Your task to perform on an android device: uninstall "TextNow: Call + Text Unlimited" Image 0: 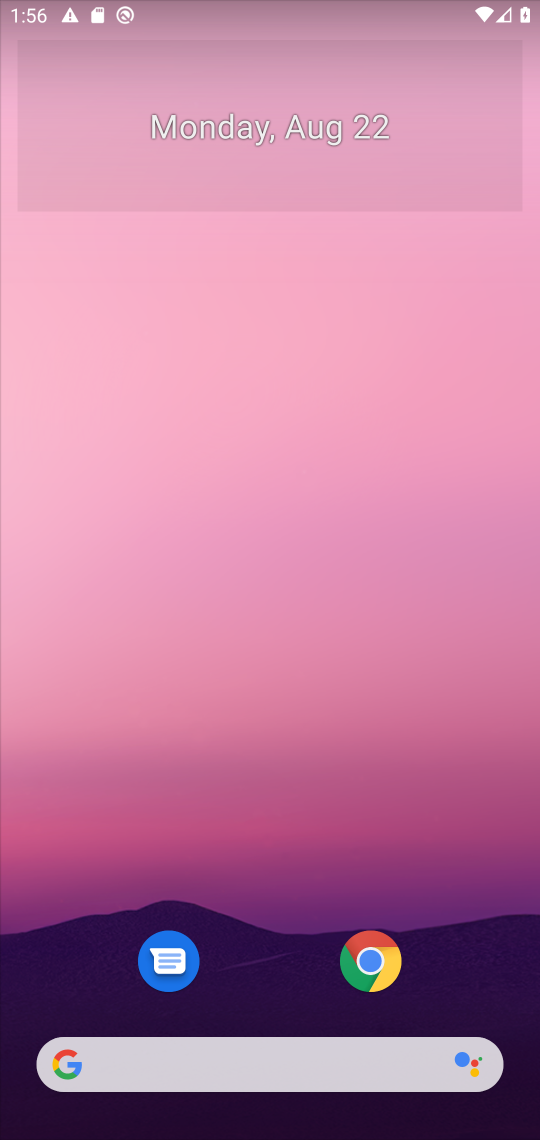
Step 0: press home button
Your task to perform on an android device: uninstall "TextNow: Call + Text Unlimited" Image 1: 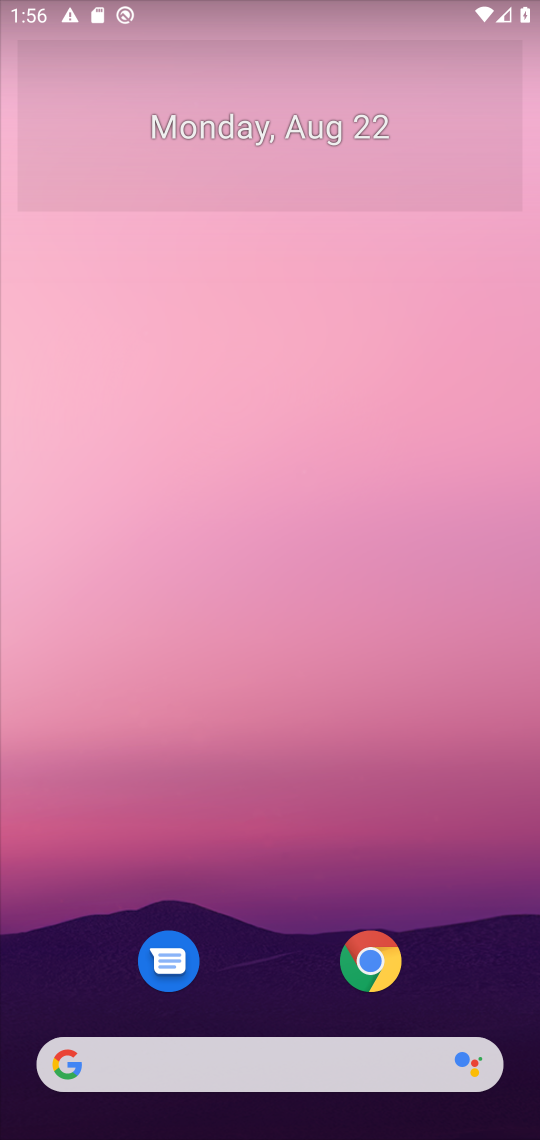
Step 1: drag from (468, 1002) to (481, 73)
Your task to perform on an android device: uninstall "TextNow: Call + Text Unlimited" Image 2: 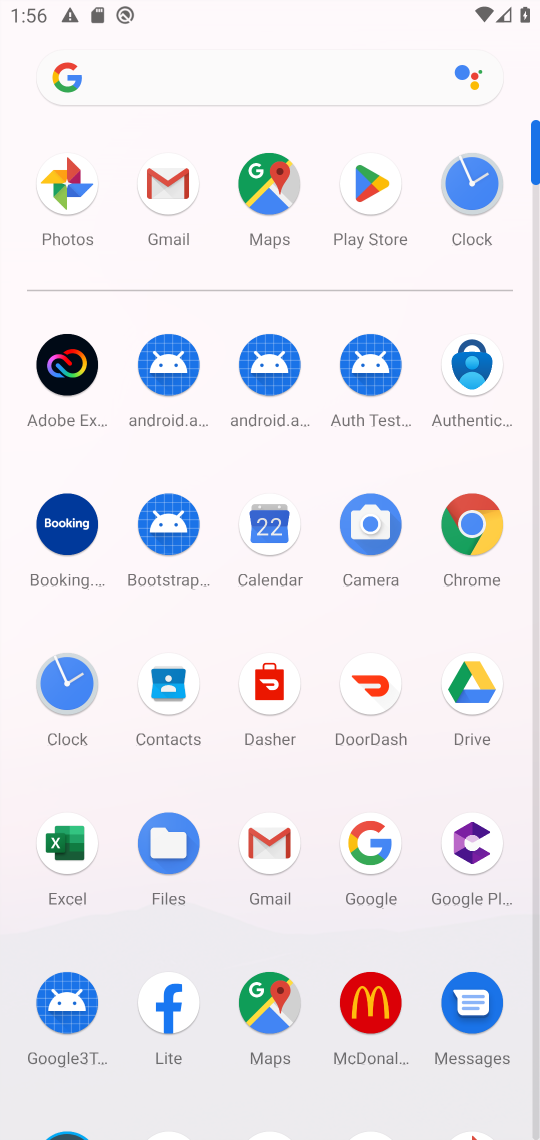
Step 2: click (371, 191)
Your task to perform on an android device: uninstall "TextNow: Call + Text Unlimited" Image 3: 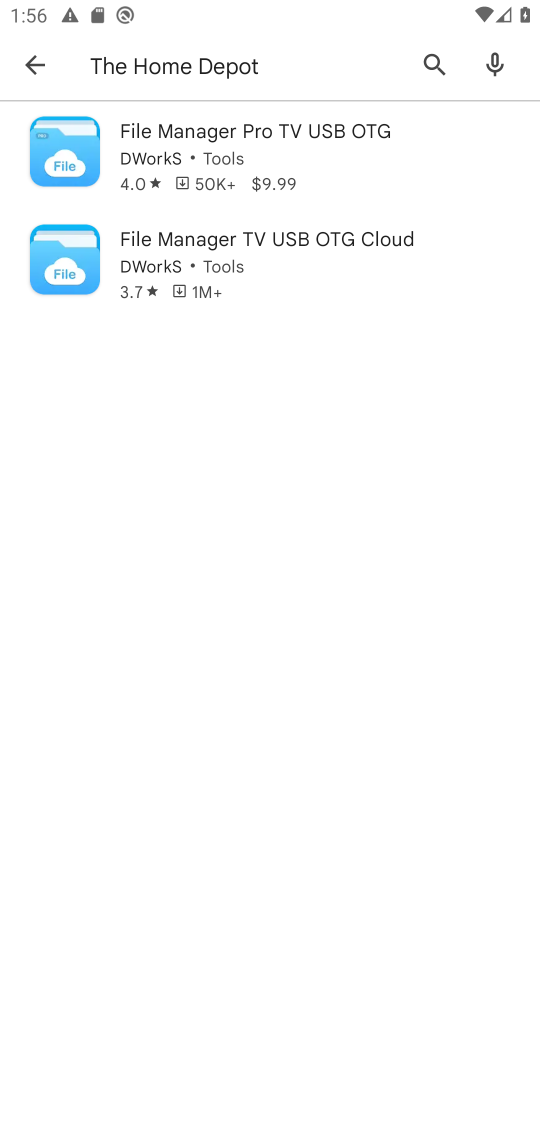
Step 3: press back button
Your task to perform on an android device: uninstall "TextNow: Call + Text Unlimited" Image 4: 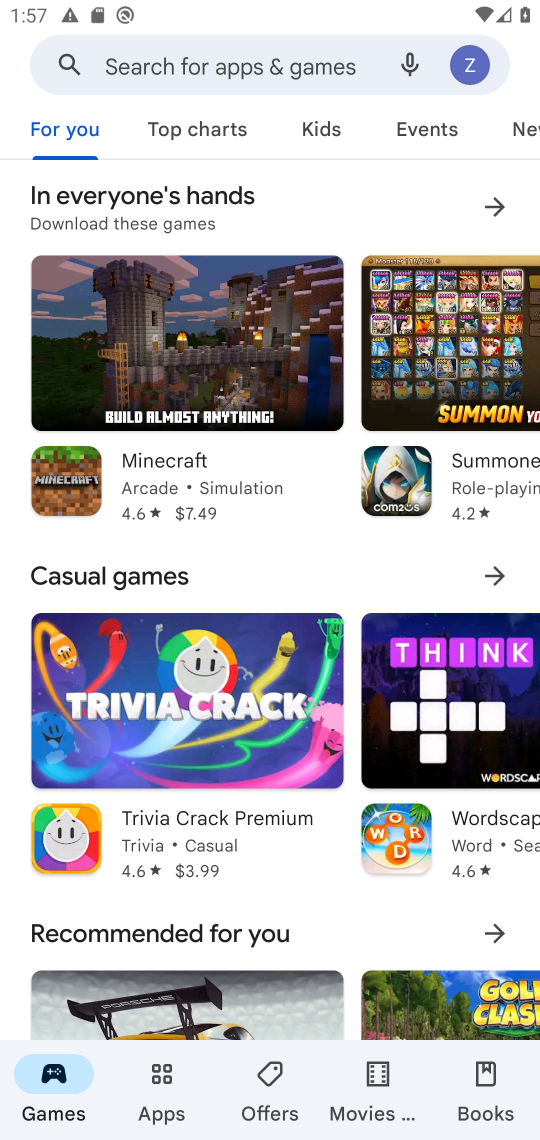
Step 4: click (267, 50)
Your task to perform on an android device: uninstall "TextNow: Call + Text Unlimited" Image 5: 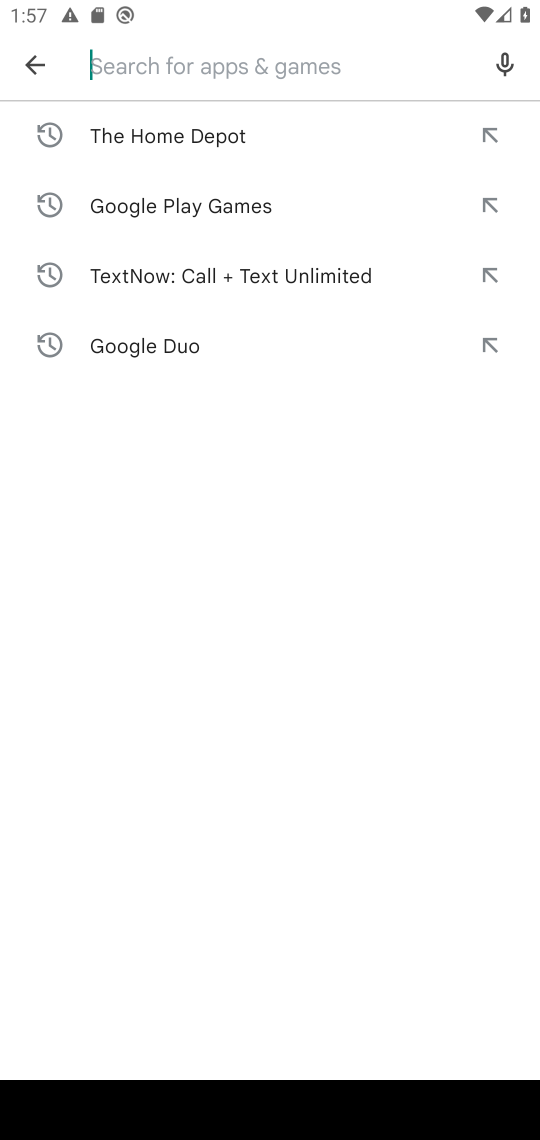
Step 5: type "TextNow: Call + Text Unlimited"
Your task to perform on an android device: uninstall "TextNow: Call + Text Unlimited" Image 6: 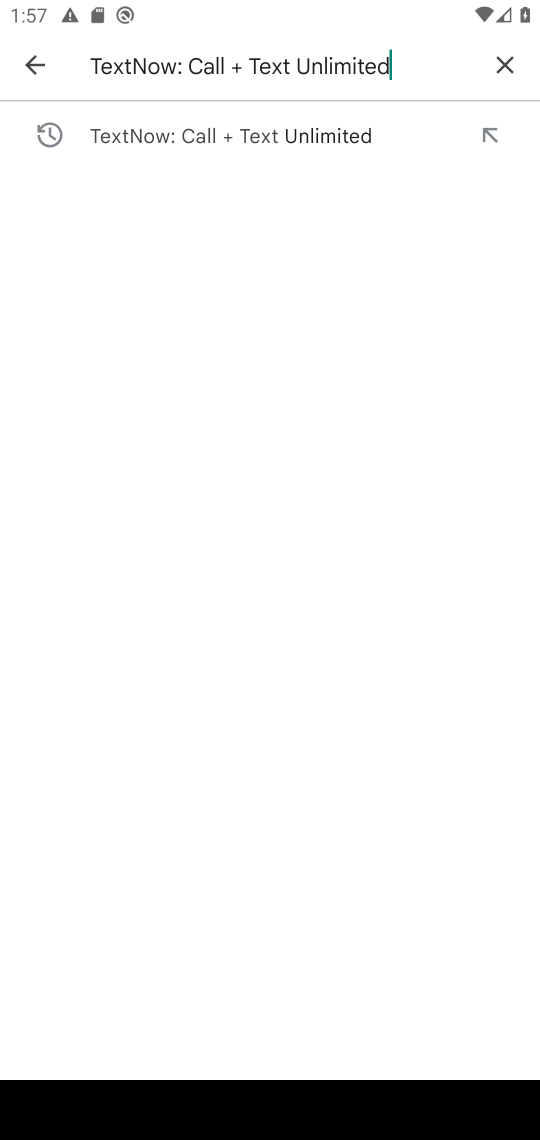
Step 6: press enter
Your task to perform on an android device: uninstall "TextNow: Call + Text Unlimited" Image 7: 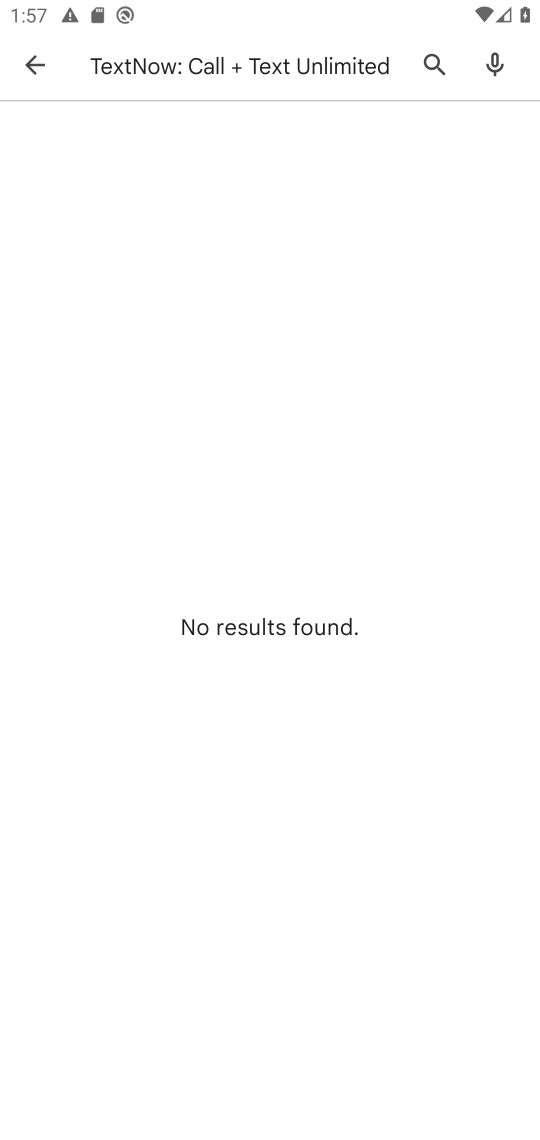
Step 7: task complete